Your task to perform on an android device: turn notification dots off Image 0: 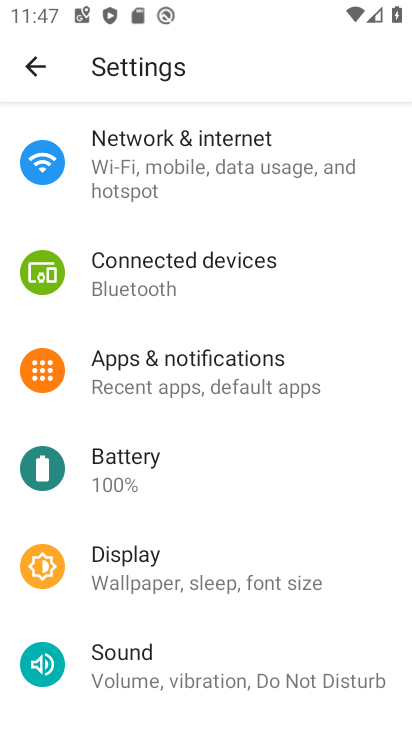
Step 0: click (233, 373)
Your task to perform on an android device: turn notification dots off Image 1: 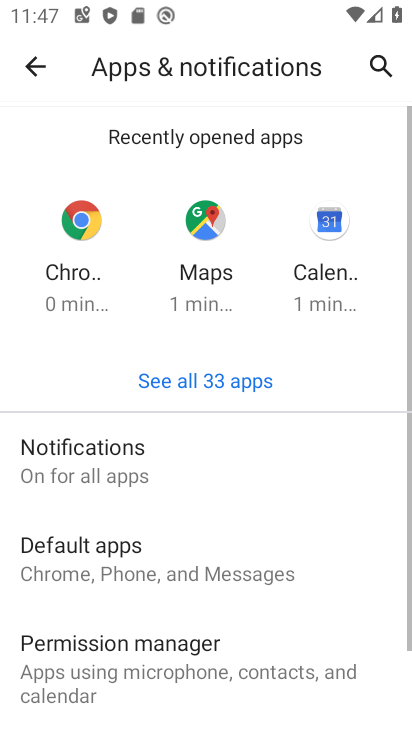
Step 1: drag from (199, 610) to (277, 239)
Your task to perform on an android device: turn notification dots off Image 2: 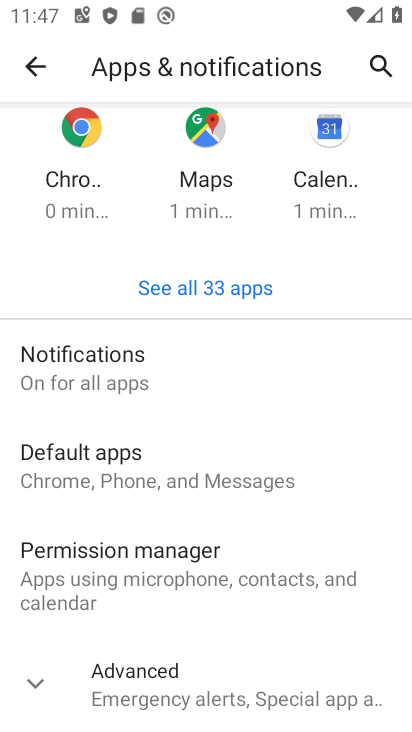
Step 2: click (34, 672)
Your task to perform on an android device: turn notification dots off Image 3: 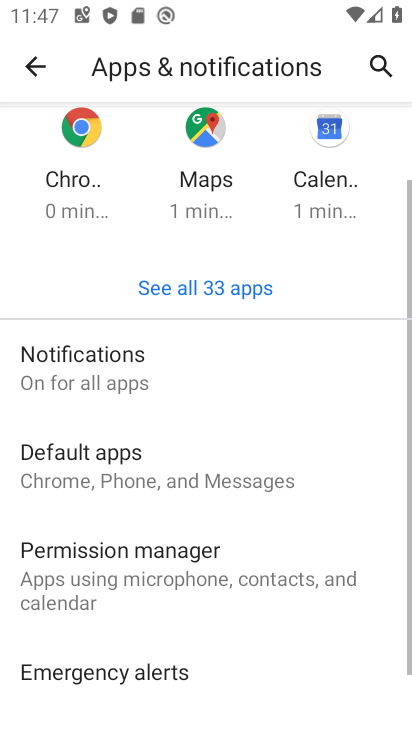
Step 3: drag from (259, 592) to (306, 185)
Your task to perform on an android device: turn notification dots off Image 4: 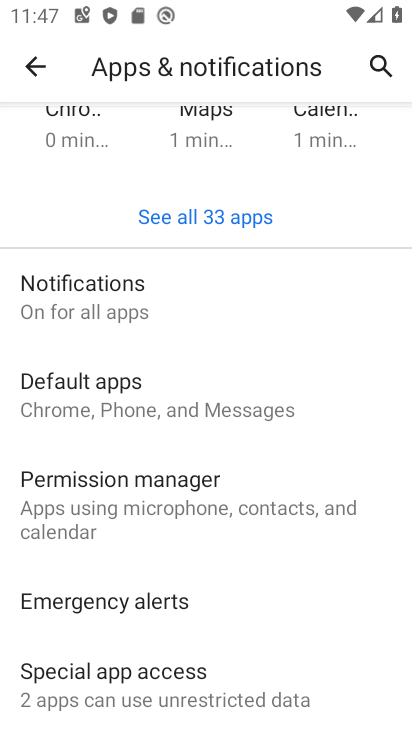
Step 4: click (157, 312)
Your task to perform on an android device: turn notification dots off Image 5: 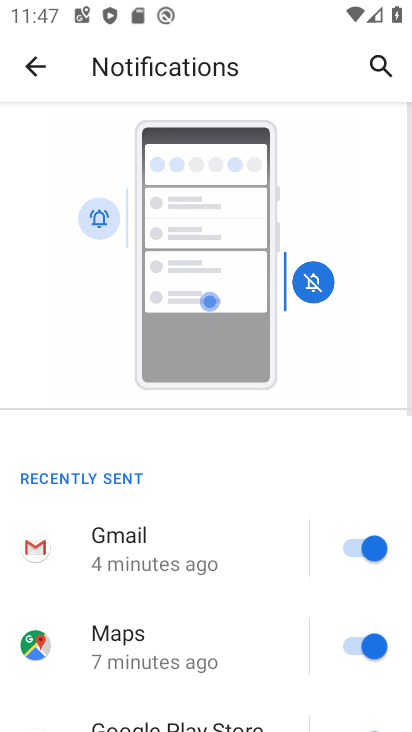
Step 5: drag from (137, 604) to (193, 183)
Your task to perform on an android device: turn notification dots off Image 6: 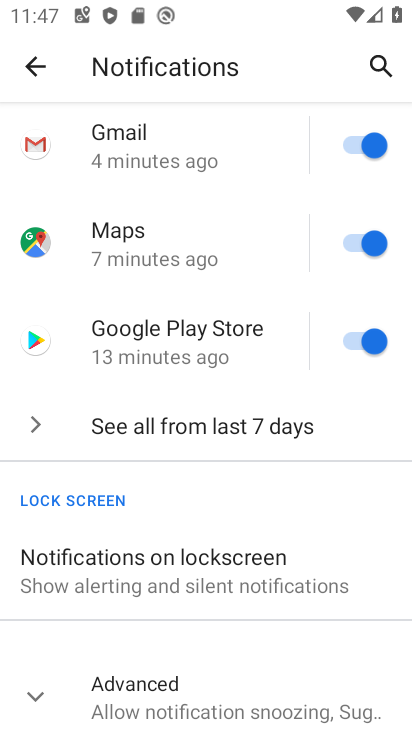
Step 6: click (32, 685)
Your task to perform on an android device: turn notification dots off Image 7: 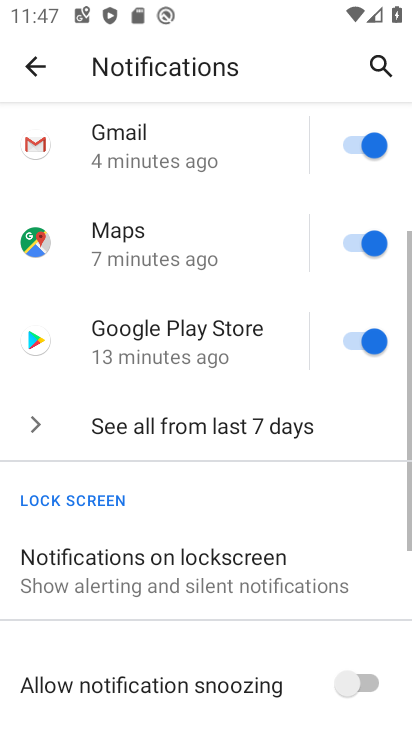
Step 7: task complete